Your task to perform on an android device: Add "panasonic triple a" to the cart on newegg.com, then select checkout. Image 0: 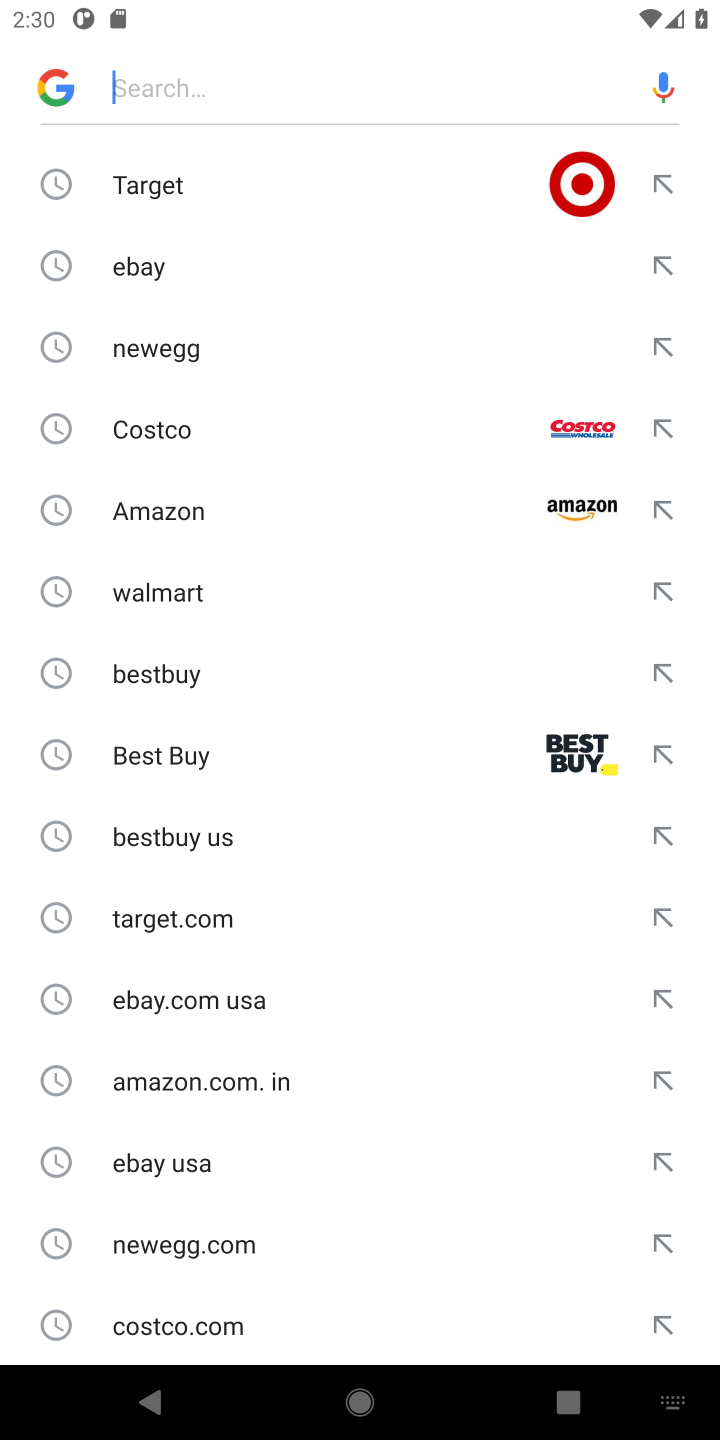
Step 0: press home button
Your task to perform on an android device: Add "panasonic triple a" to the cart on newegg.com, then select checkout. Image 1: 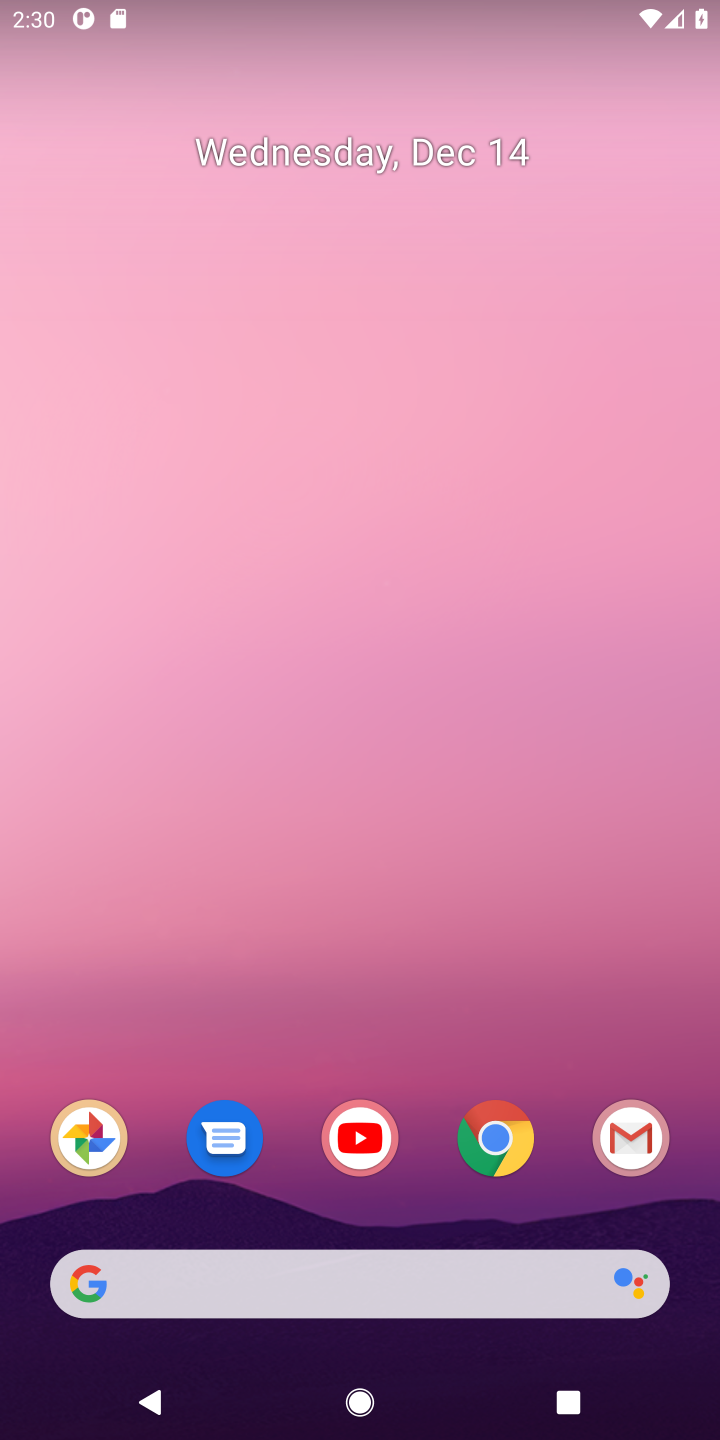
Step 1: click (504, 1140)
Your task to perform on an android device: Add "panasonic triple a" to the cart on newegg.com, then select checkout. Image 2: 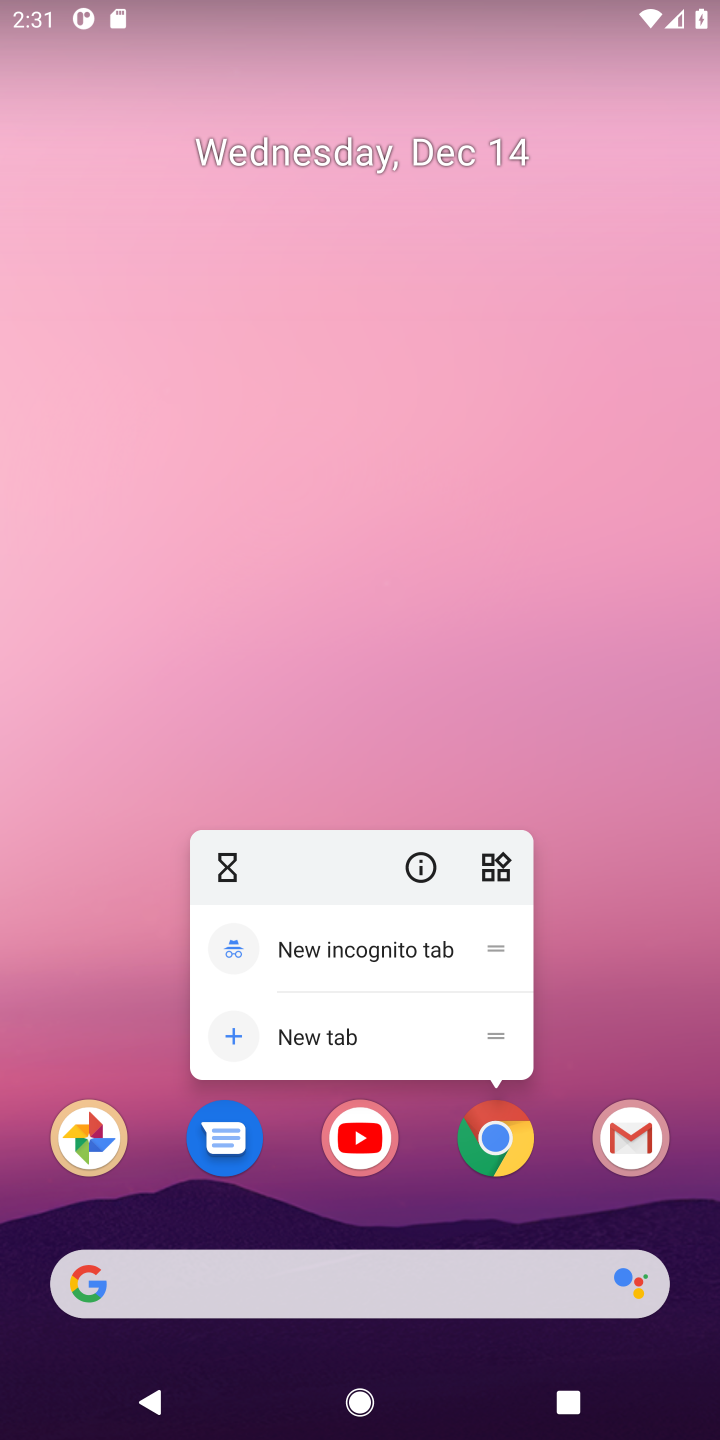
Step 2: click (504, 1140)
Your task to perform on an android device: Add "panasonic triple a" to the cart on newegg.com, then select checkout. Image 3: 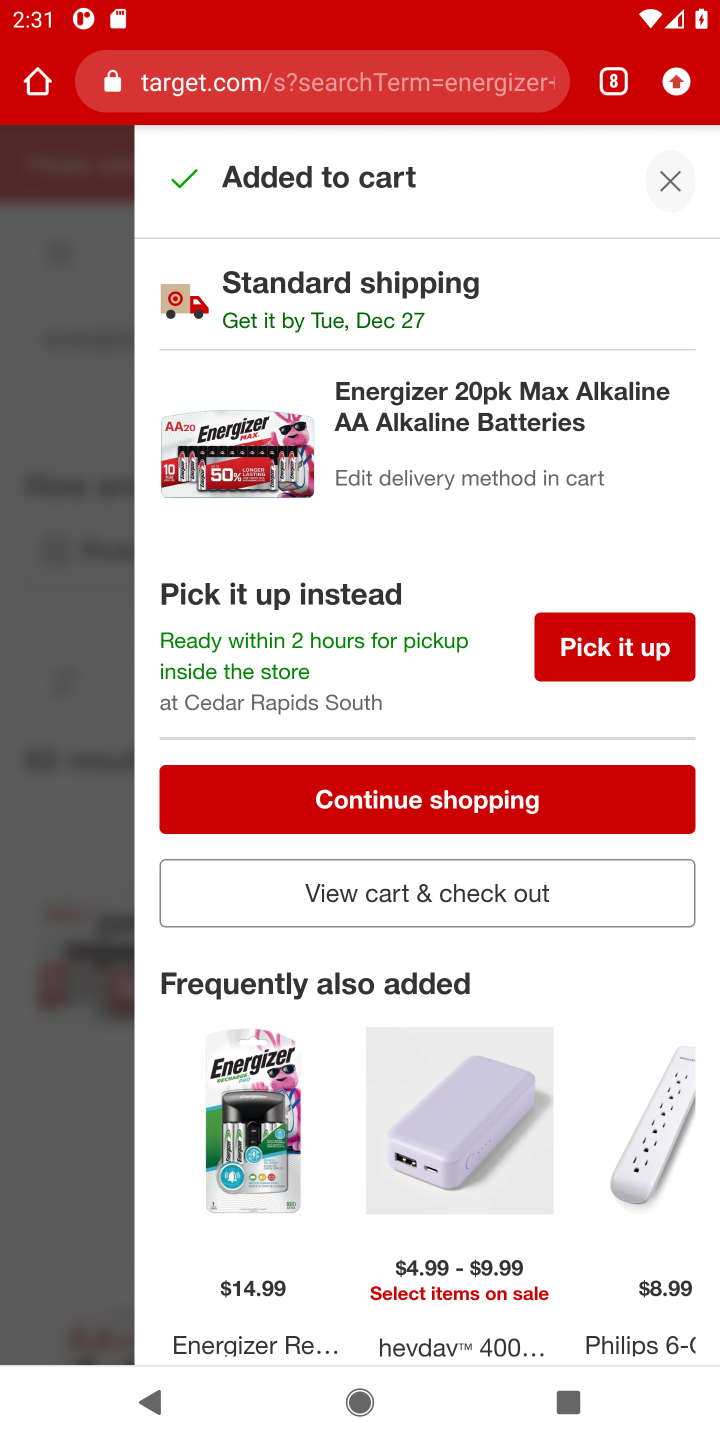
Step 3: click (619, 91)
Your task to perform on an android device: Add "panasonic triple a" to the cart on newegg.com, then select checkout. Image 4: 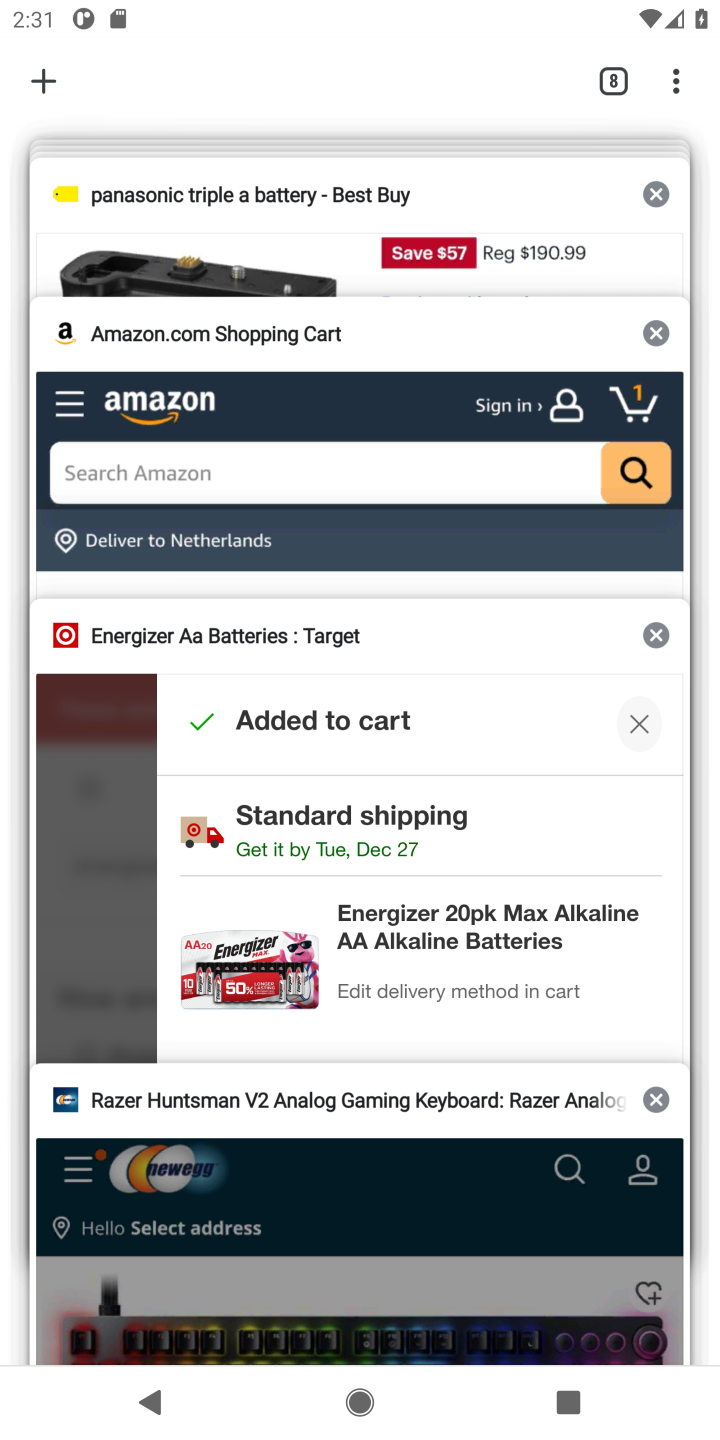
Step 4: click (409, 1138)
Your task to perform on an android device: Add "panasonic triple a" to the cart on newegg.com, then select checkout. Image 5: 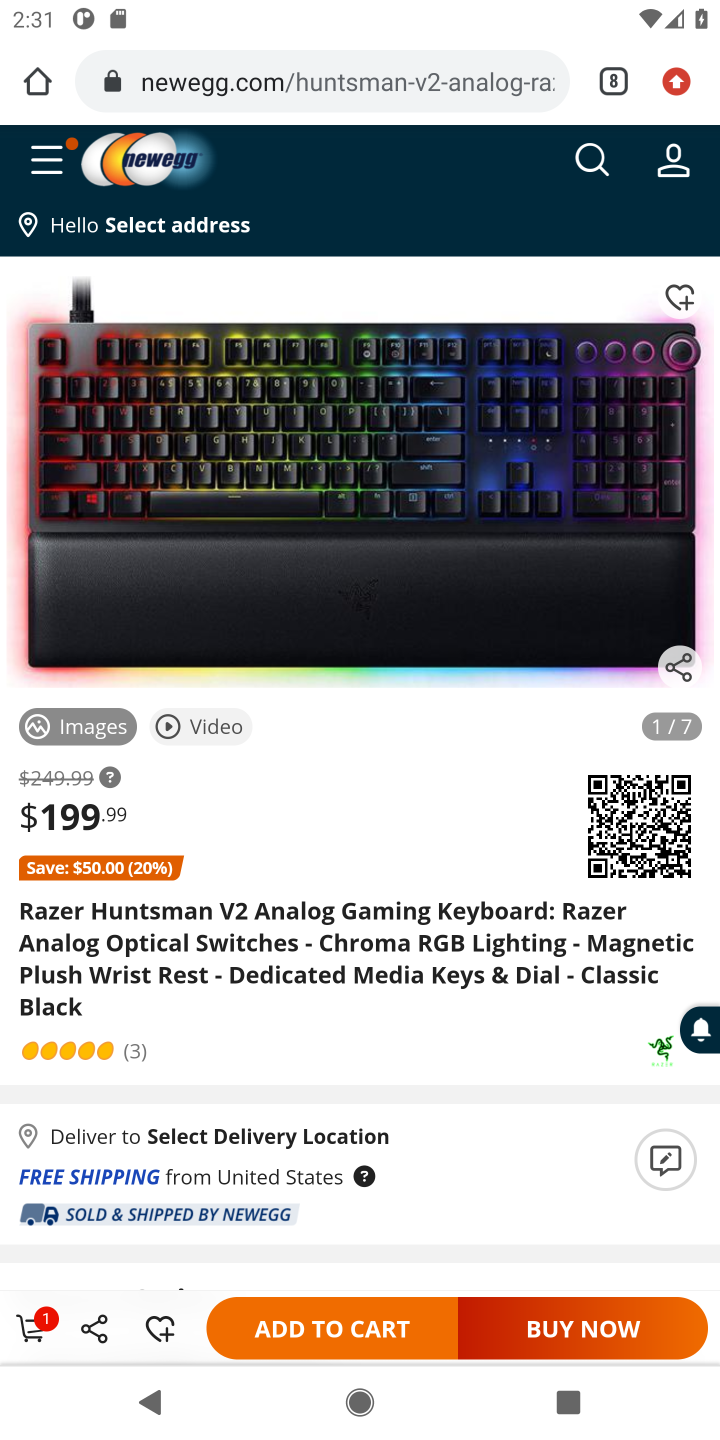
Step 5: click (586, 156)
Your task to perform on an android device: Add "panasonic triple a" to the cart on newegg.com, then select checkout. Image 6: 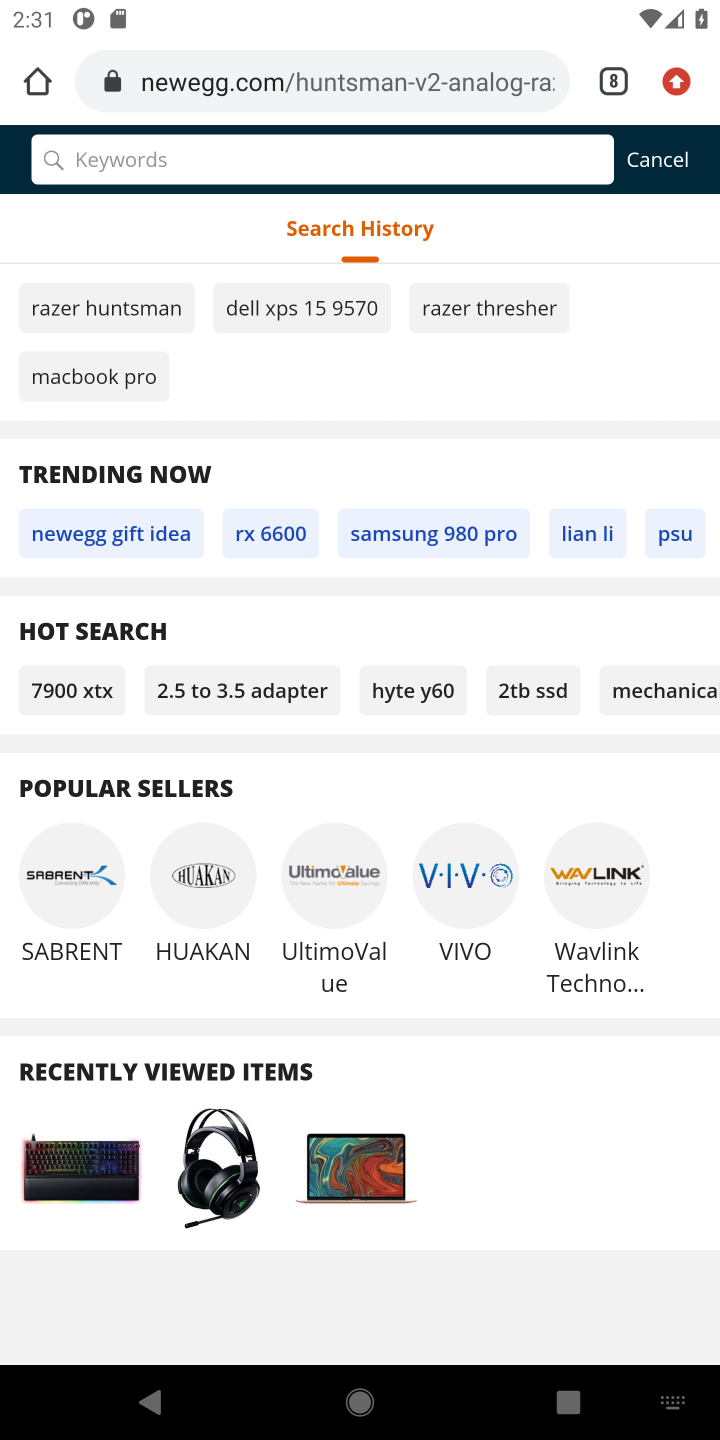
Step 6: type "panasonic triple a"
Your task to perform on an android device: Add "panasonic triple a" to the cart on newegg.com, then select checkout. Image 7: 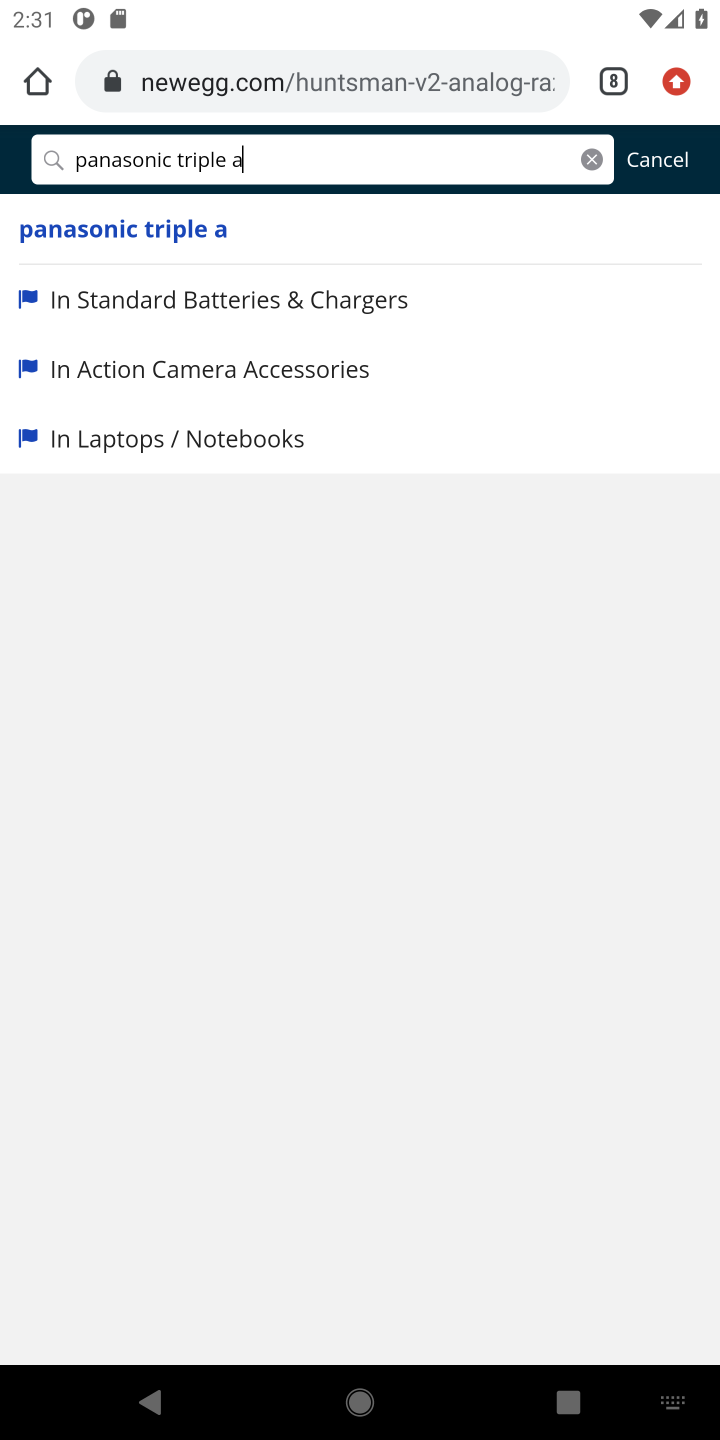
Step 7: click (72, 230)
Your task to perform on an android device: Add "panasonic triple a" to the cart on newegg.com, then select checkout. Image 8: 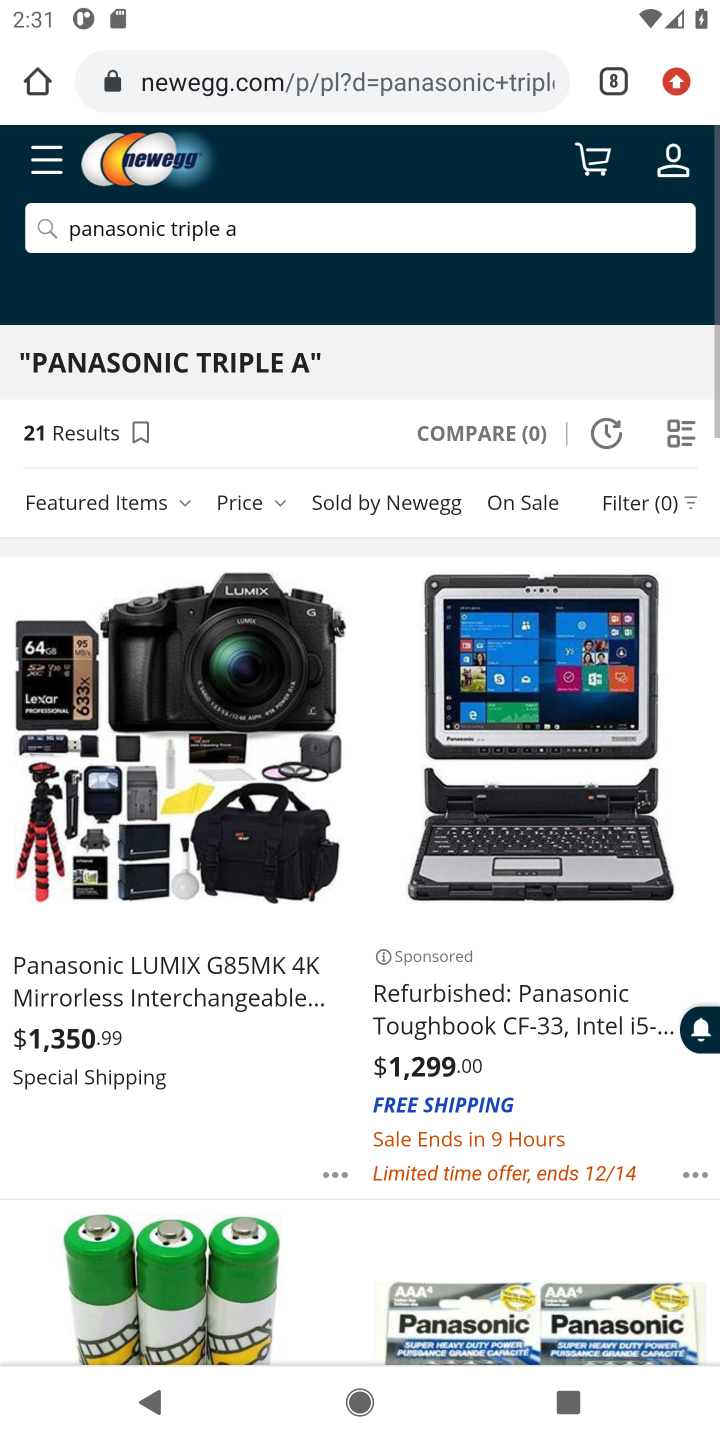
Step 8: click (72, 230)
Your task to perform on an android device: Add "panasonic triple a" to the cart on newegg.com, then select checkout. Image 9: 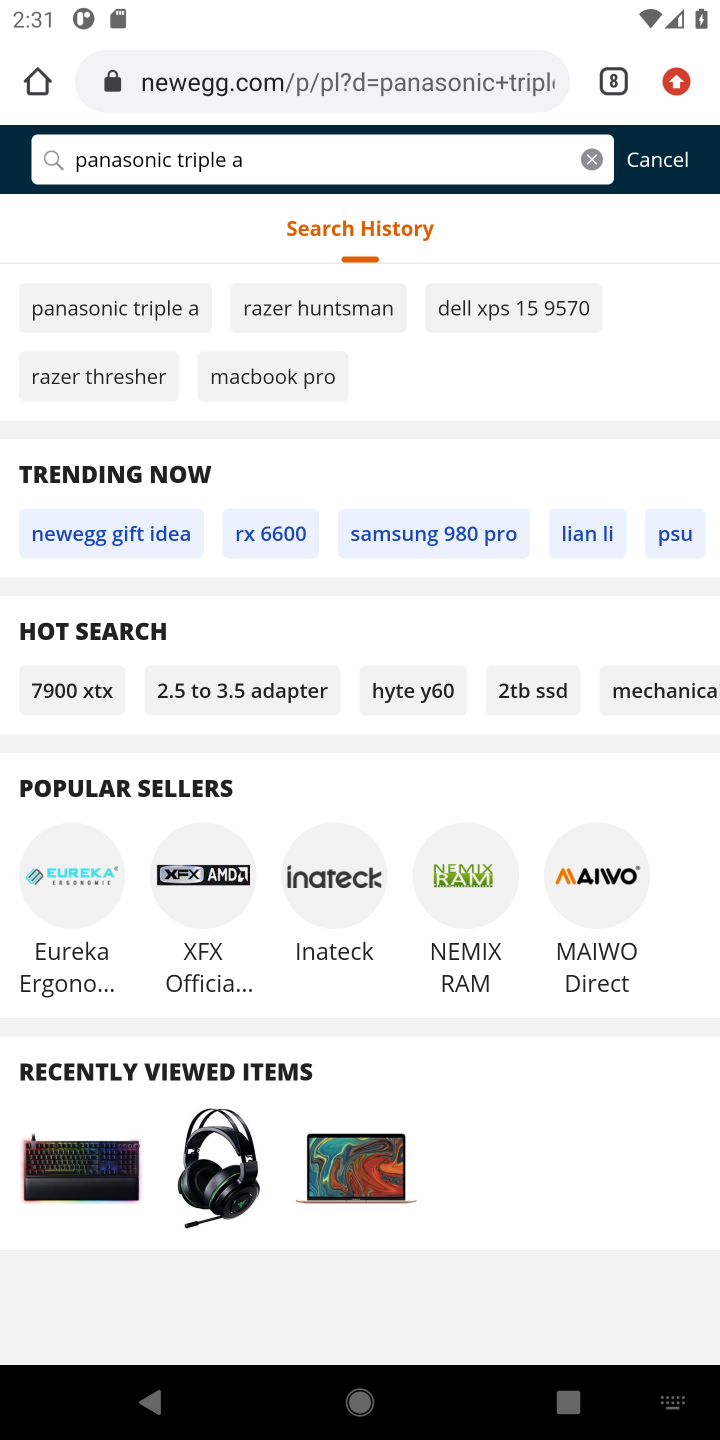
Step 9: press enter
Your task to perform on an android device: Add "panasonic triple a" to the cart on newegg.com, then select checkout. Image 10: 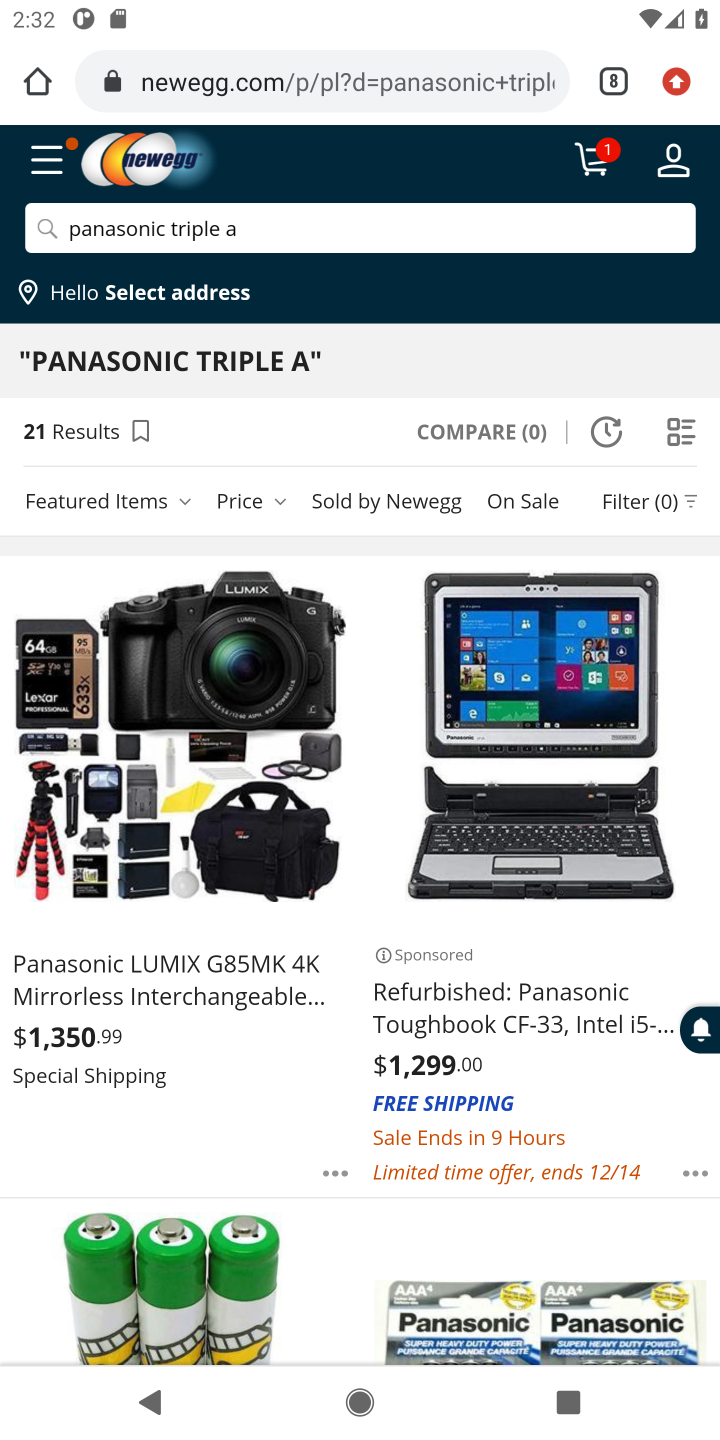
Step 10: drag from (271, 1140) to (72, 206)
Your task to perform on an android device: Add "panasonic triple a" to the cart on newegg.com, then select checkout. Image 11: 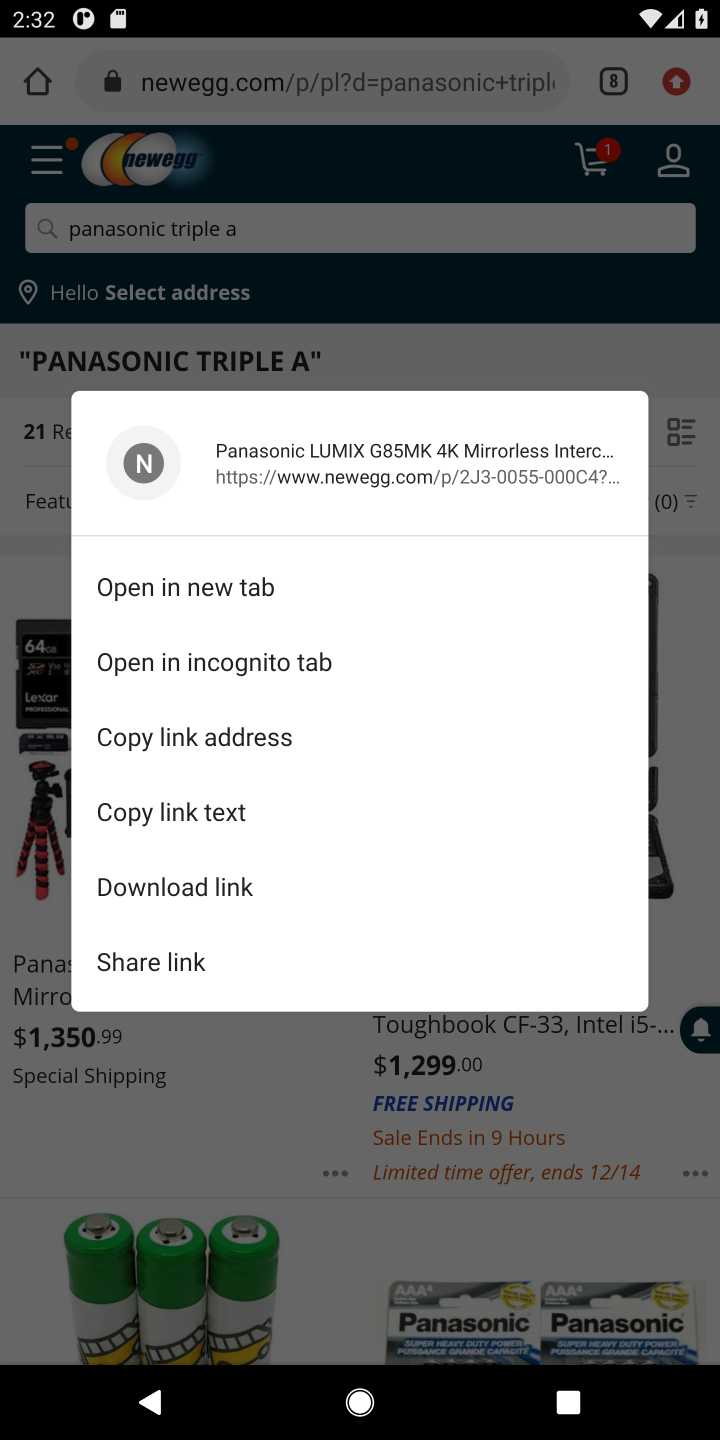
Step 11: click (367, 1124)
Your task to perform on an android device: Add "panasonic triple a" to the cart on newegg.com, then select checkout. Image 12: 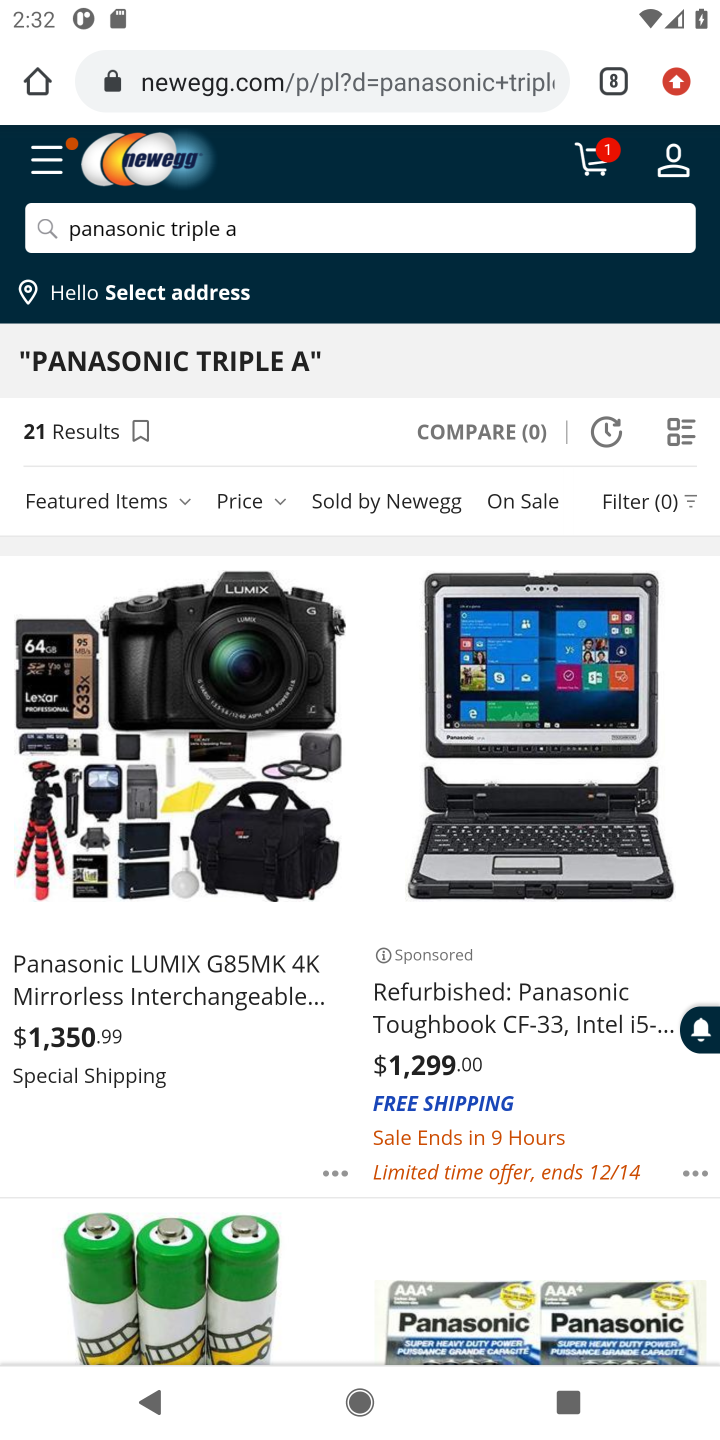
Step 12: drag from (308, 1298) to (117, 0)
Your task to perform on an android device: Add "panasonic triple a" to the cart on newegg.com, then select checkout. Image 13: 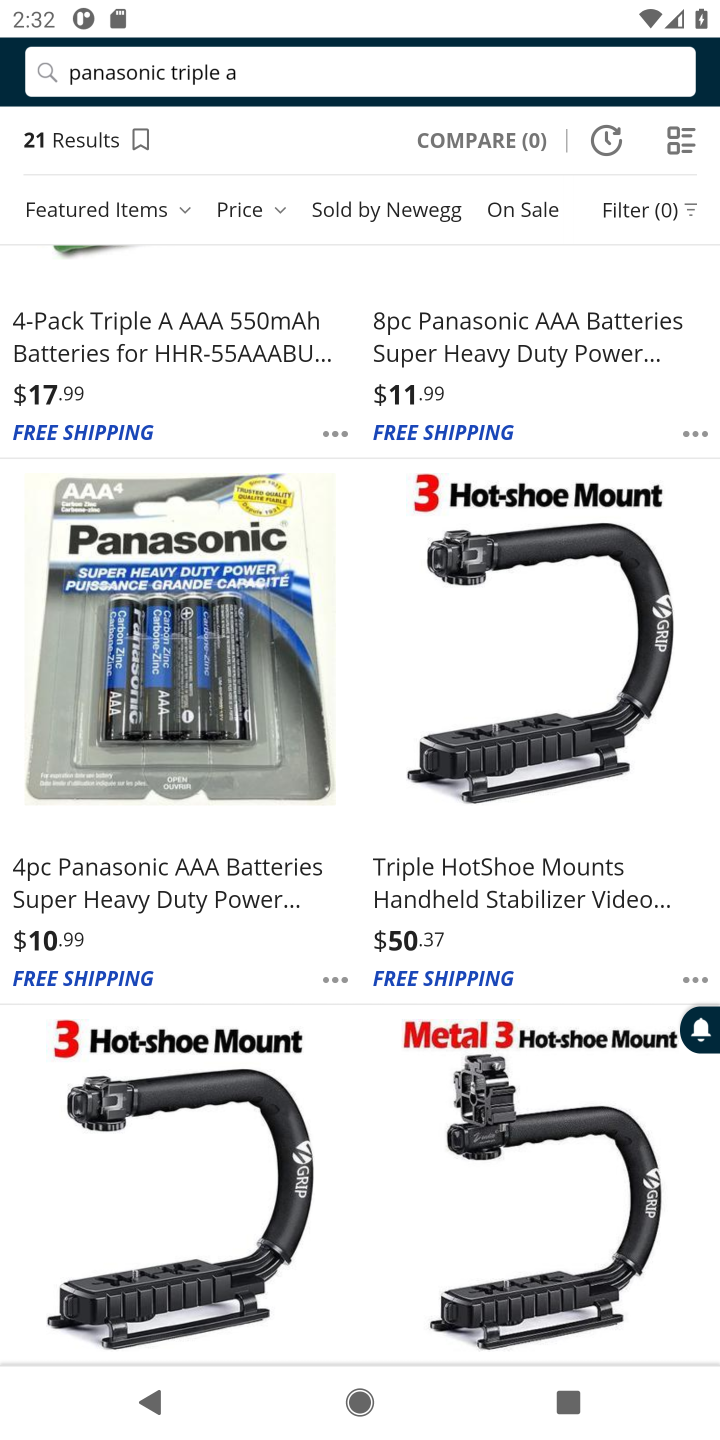
Step 13: click (128, 873)
Your task to perform on an android device: Add "panasonic triple a" to the cart on newegg.com, then select checkout. Image 14: 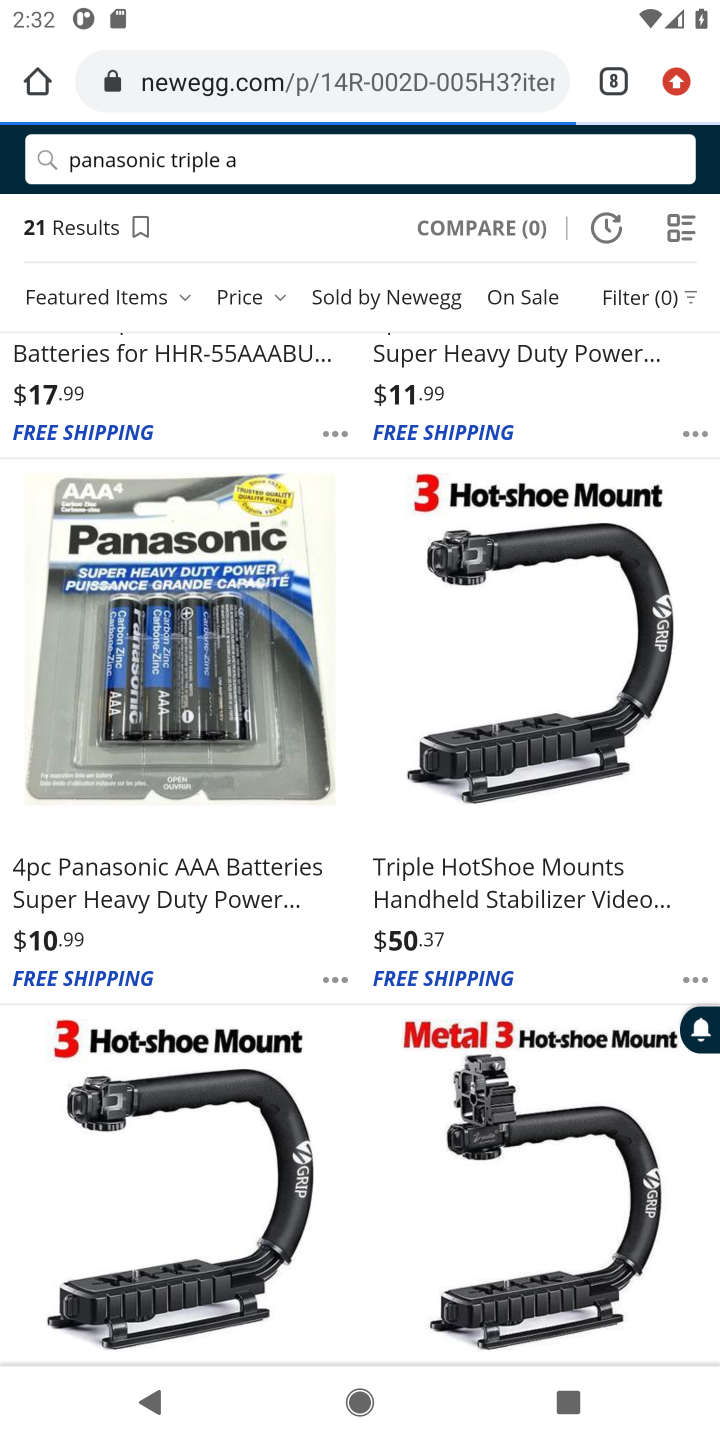
Step 14: click (98, 652)
Your task to perform on an android device: Add "panasonic triple a" to the cart on newegg.com, then select checkout. Image 15: 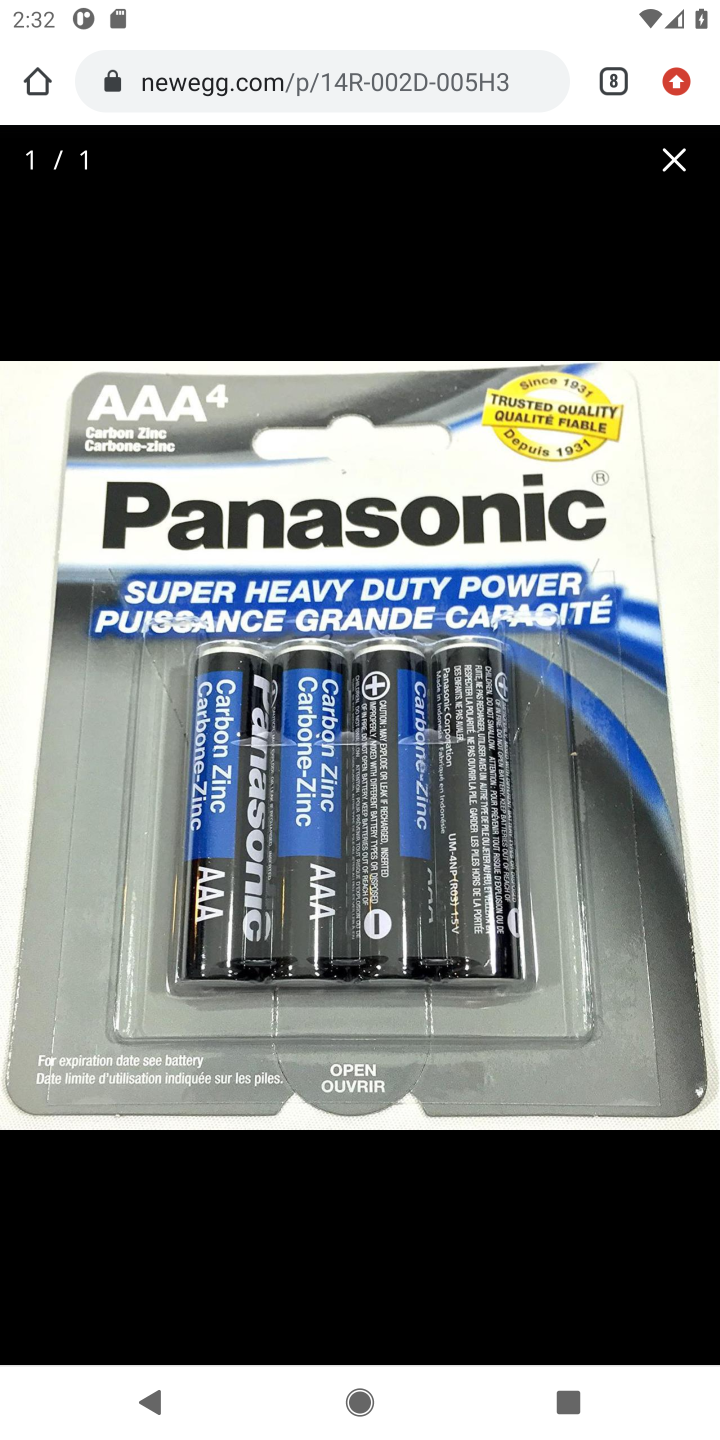
Step 15: click (679, 164)
Your task to perform on an android device: Add "panasonic triple a" to the cart on newegg.com, then select checkout. Image 16: 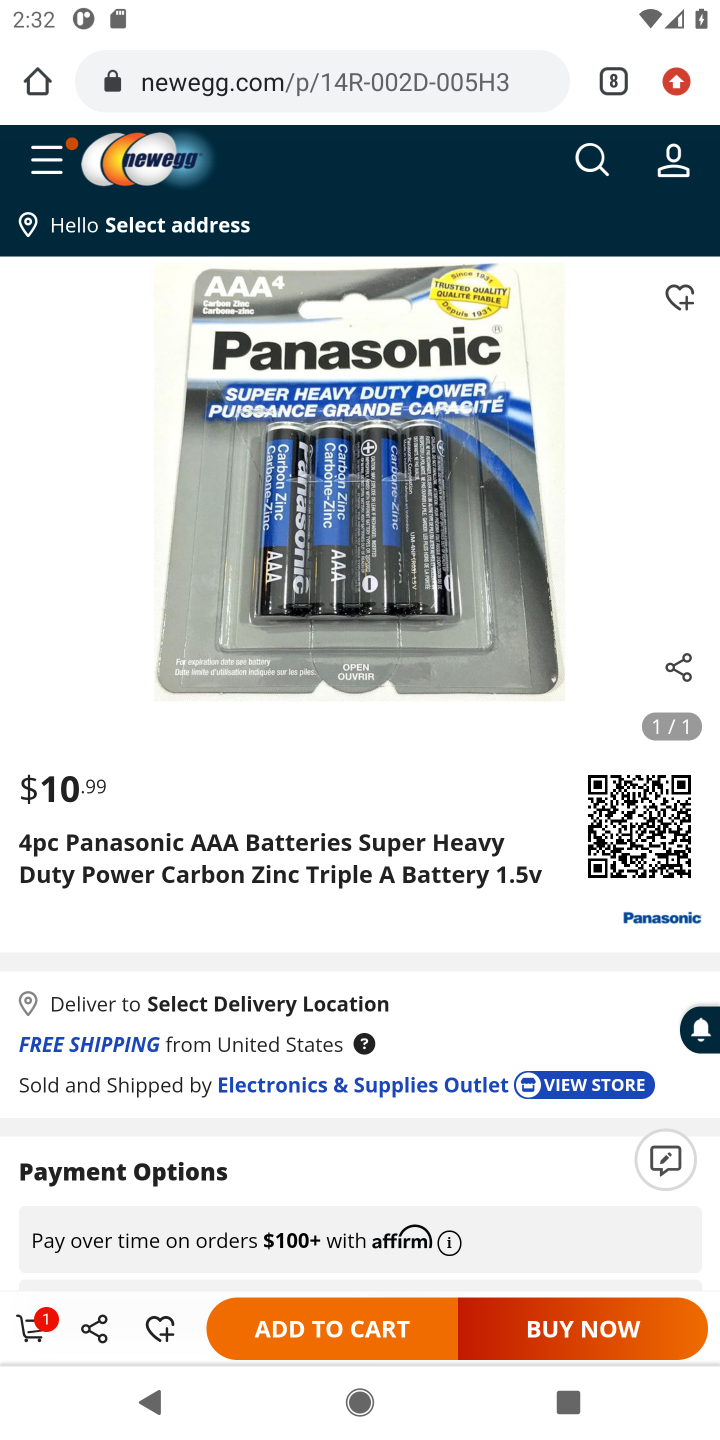
Step 16: click (307, 1325)
Your task to perform on an android device: Add "panasonic triple a" to the cart on newegg.com, then select checkout. Image 17: 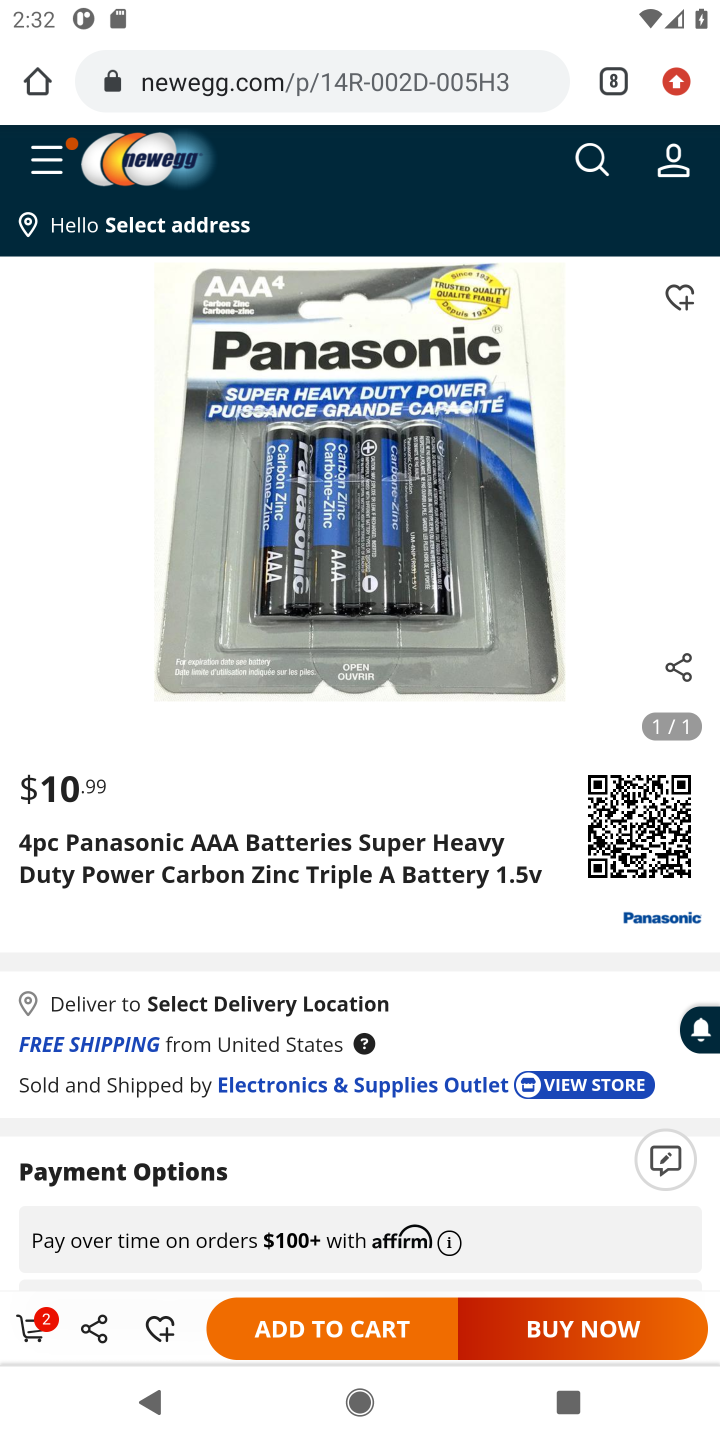
Step 17: task complete